Your task to perform on an android device: toggle javascript in the chrome app Image 0: 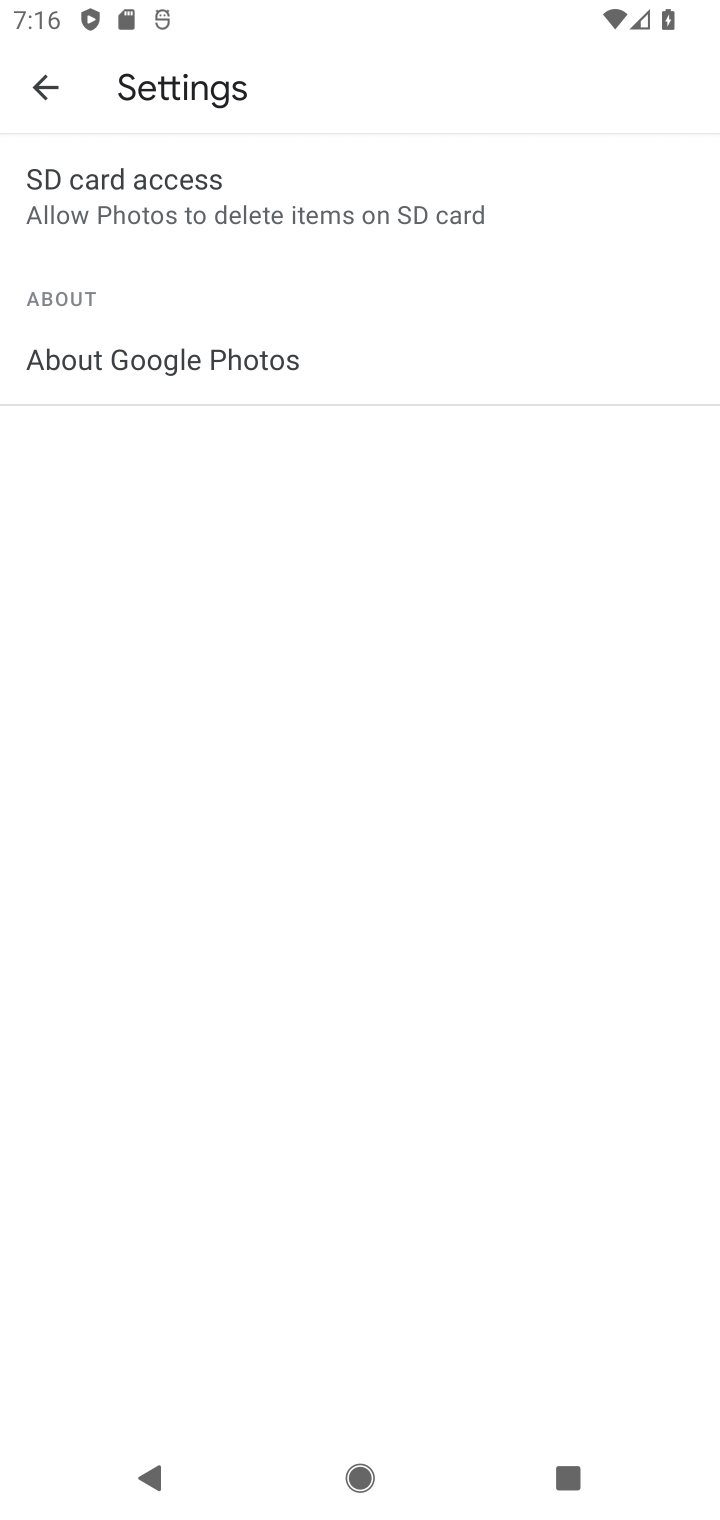
Step 0: press home button
Your task to perform on an android device: toggle javascript in the chrome app Image 1: 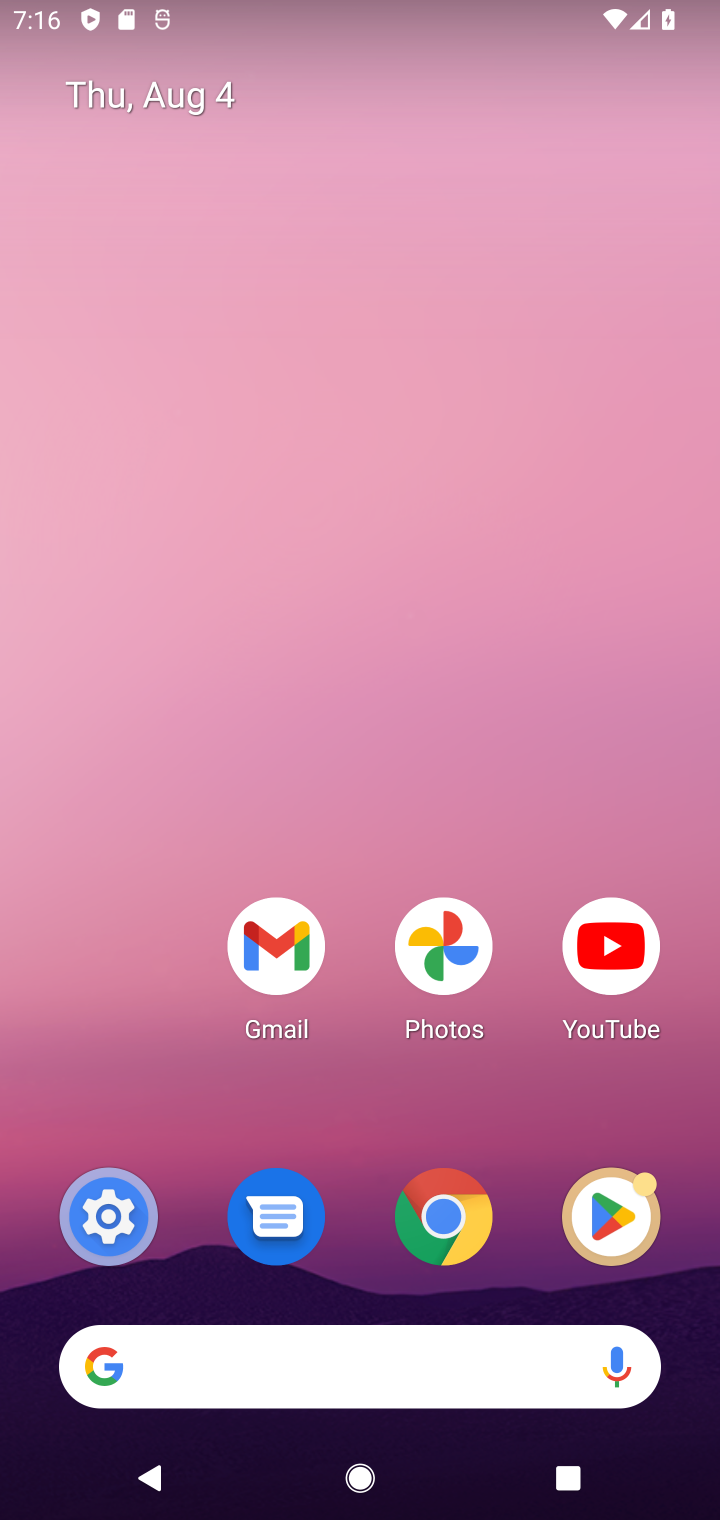
Step 1: click (445, 1244)
Your task to perform on an android device: toggle javascript in the chrome app Image 2: 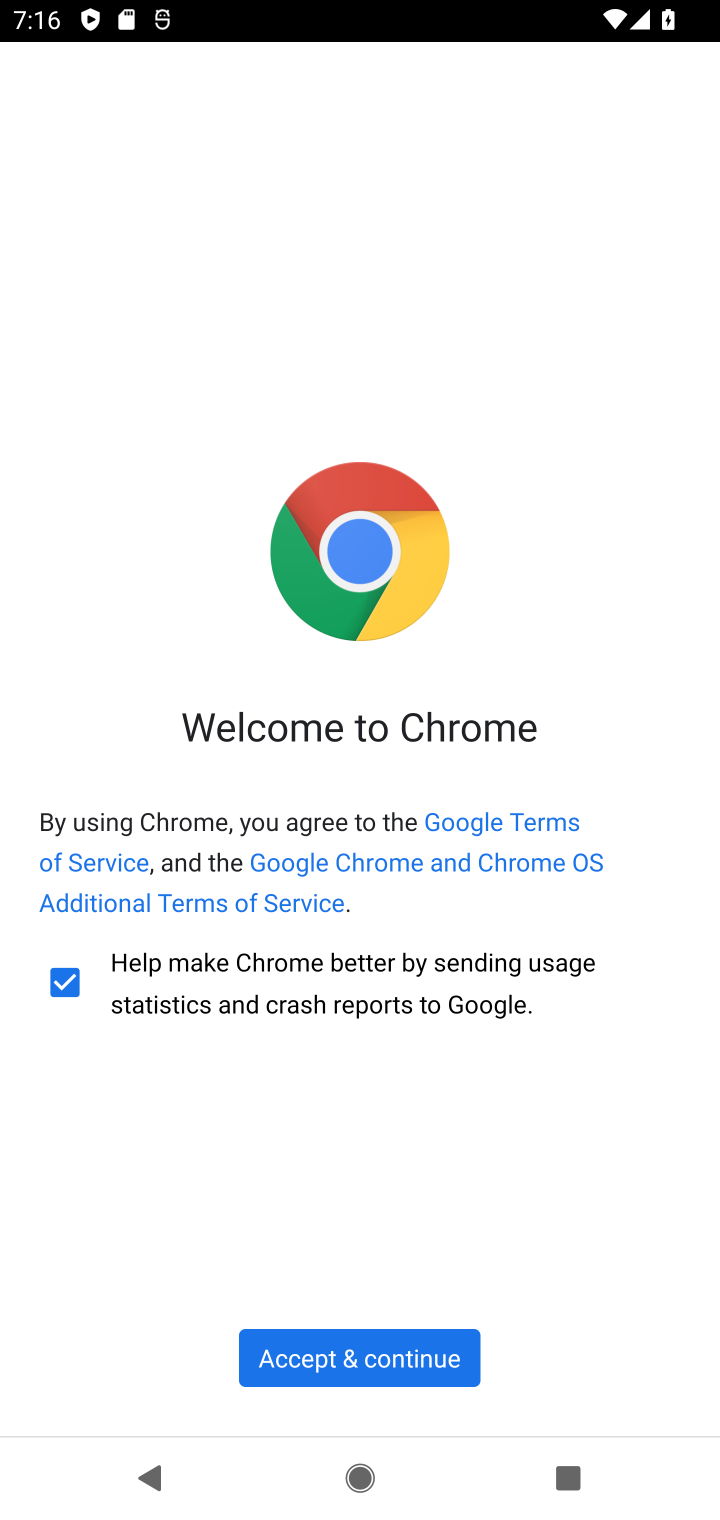
Step 2: click (374, 1351)
Your task to perform on an android device: toggle javascript in the chrome app Image 3: 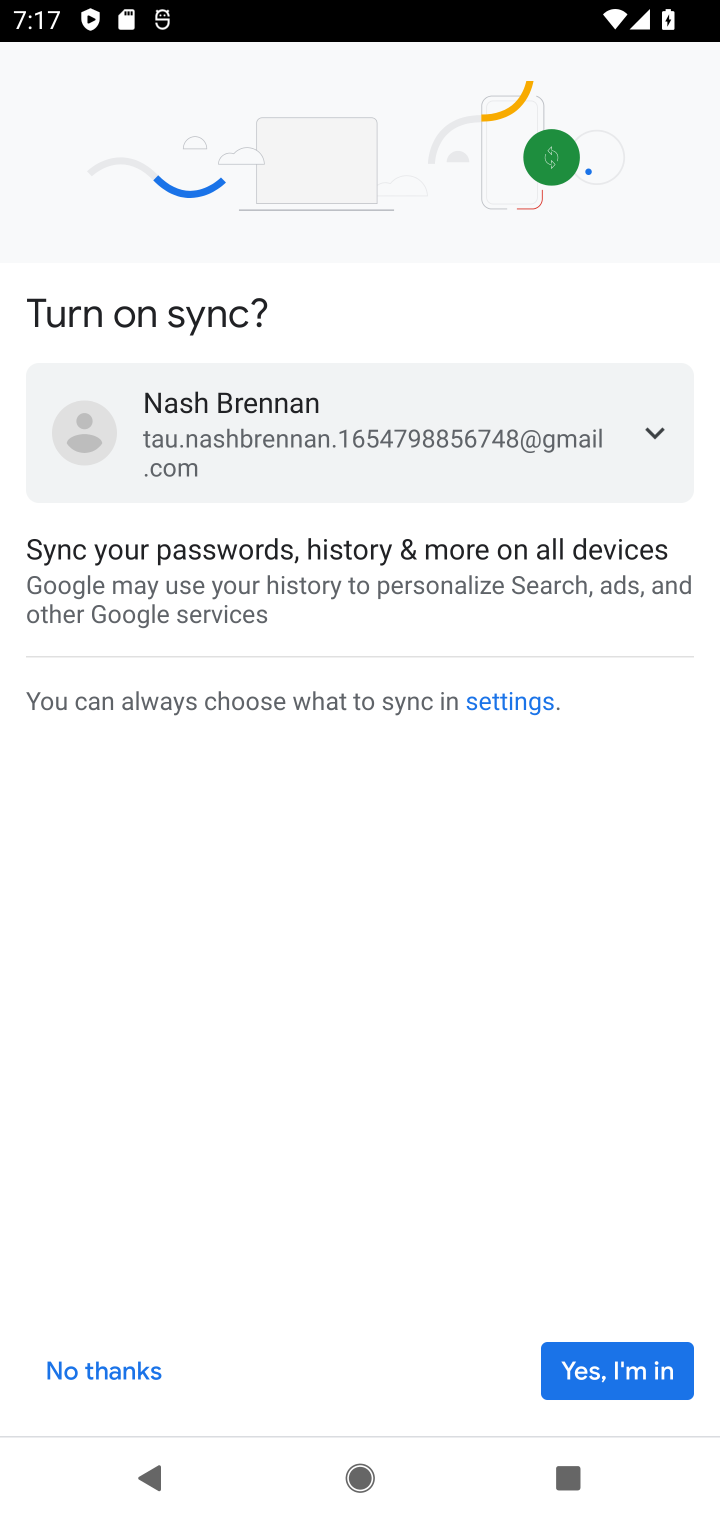
Step 3: click (613, 1373)
Your task to perform on an android device: toggle javascript in the chrome app Image 4: 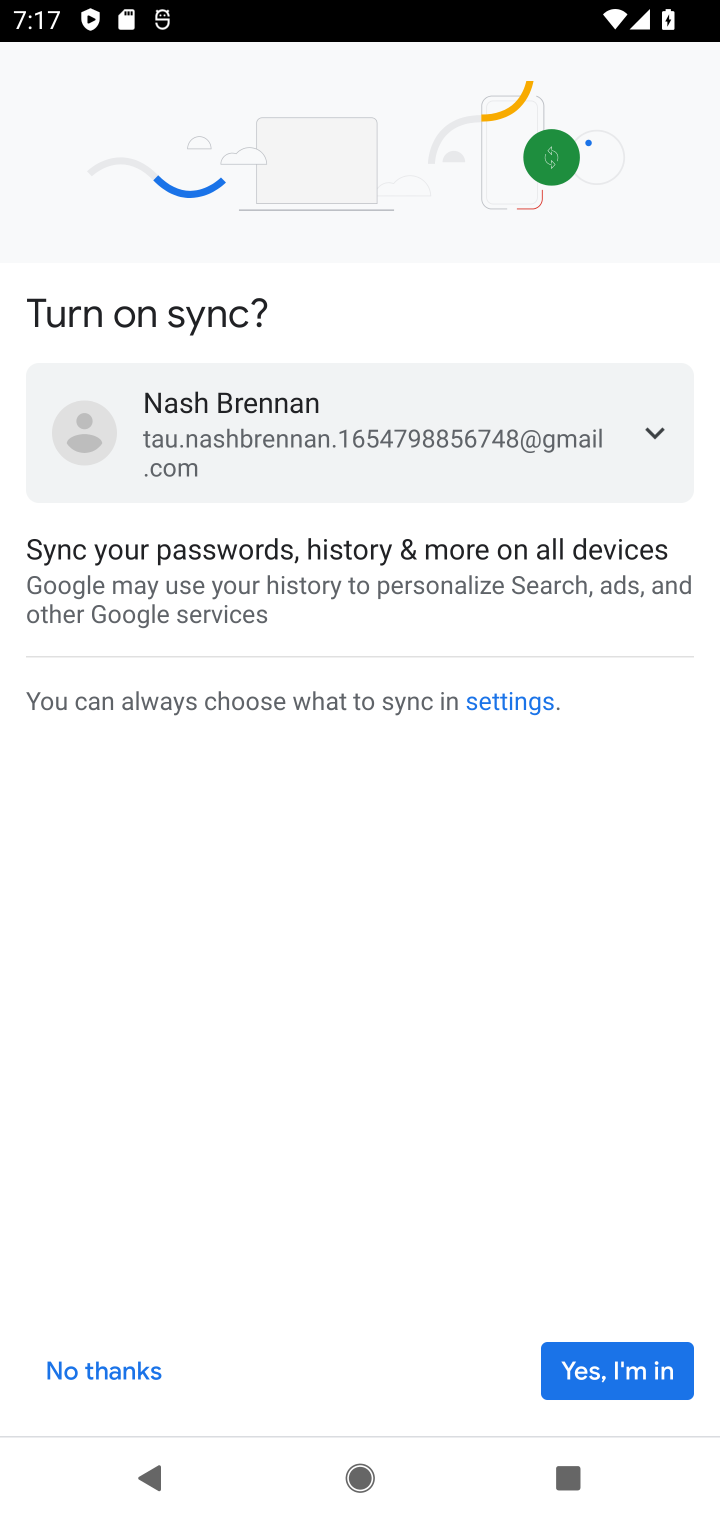
Step 4: click (613, 1373)
Your task to perform on an android device: toggle javascript in the chrome app Image 5: 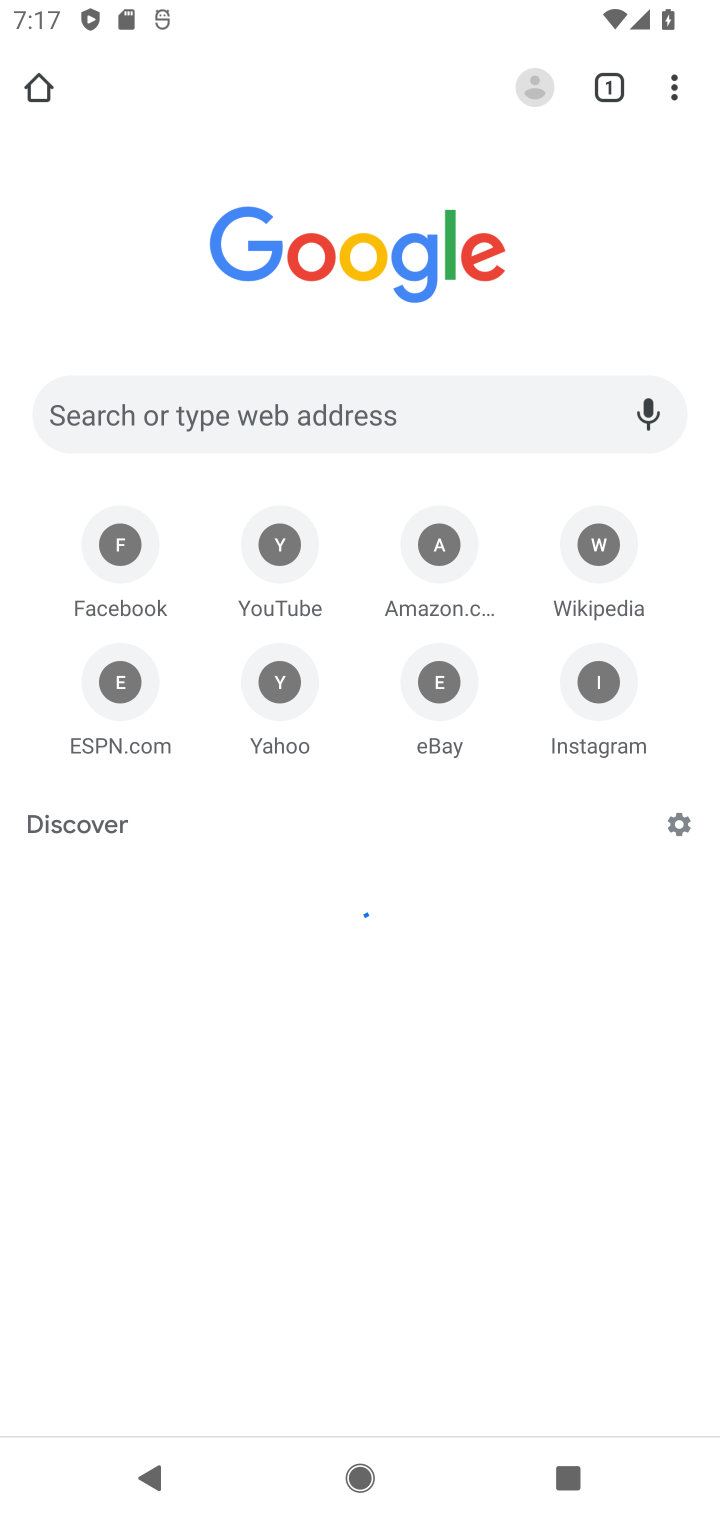
Step 5: click (675, 69)
Your task to perform on an android device: toggle javascript in the chrome app Image 6: 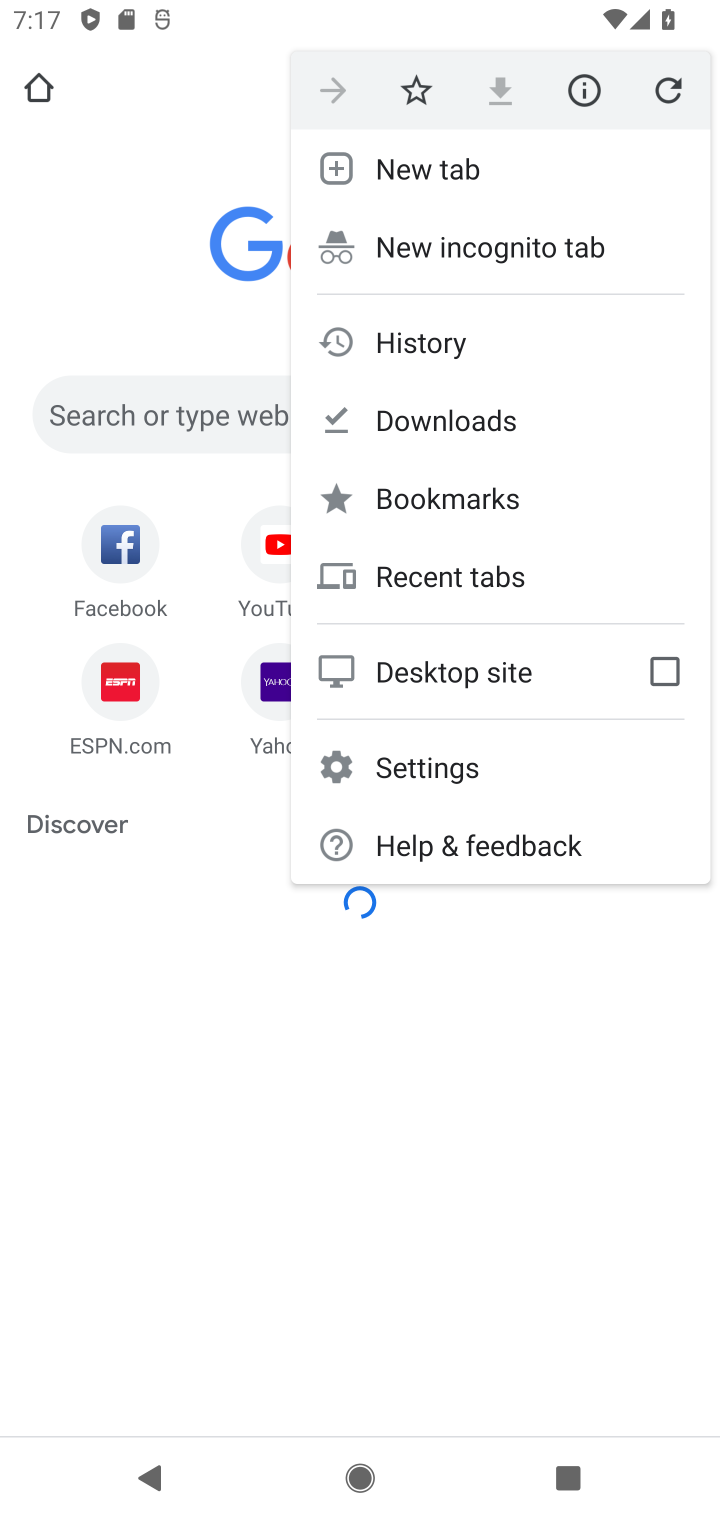
Step 6: click (388, 777)
Your task to perform on an android device: toggle javascript in the chrome app Image 7: 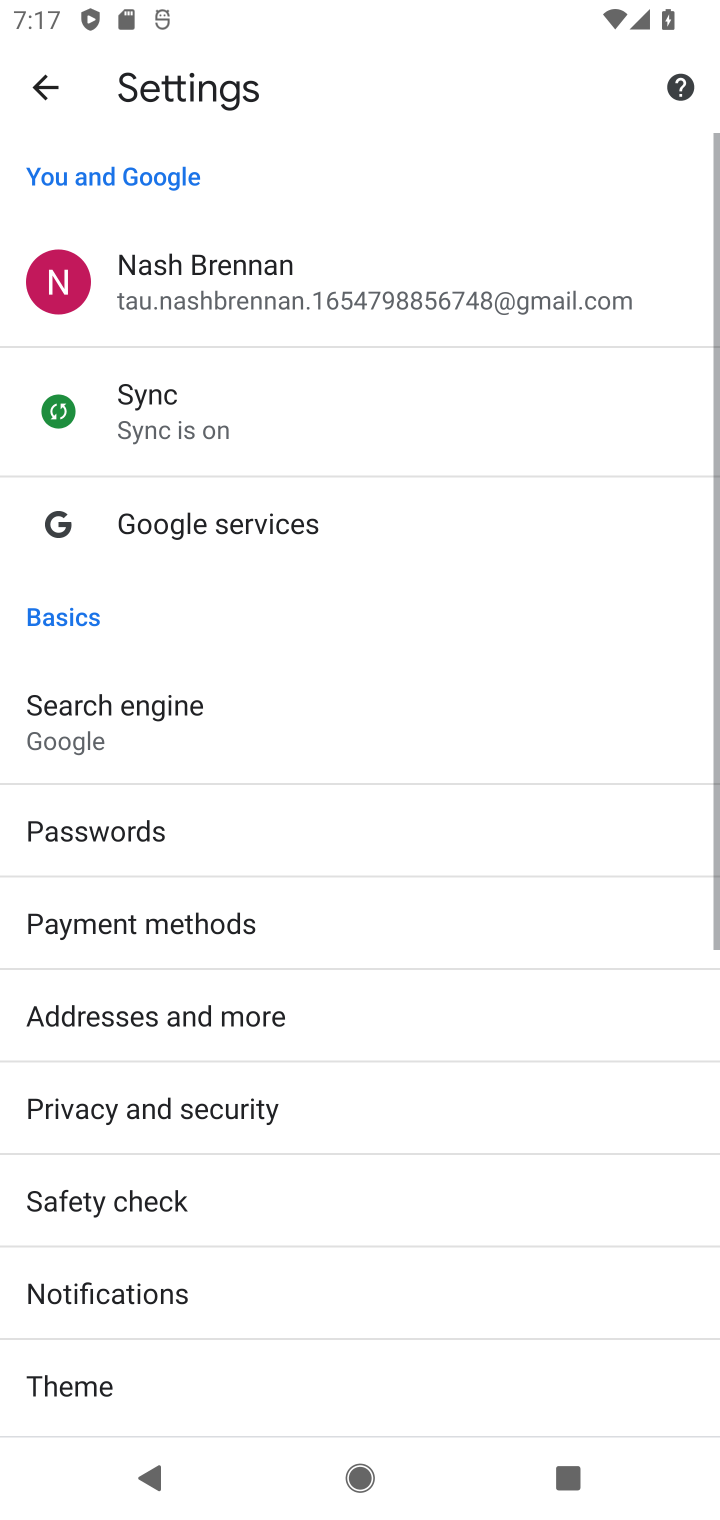
Step 7: drag from (211, 1320) to (346, 374)
Your task to perform on an android device: toggle javascript in the chrome app Image 8: 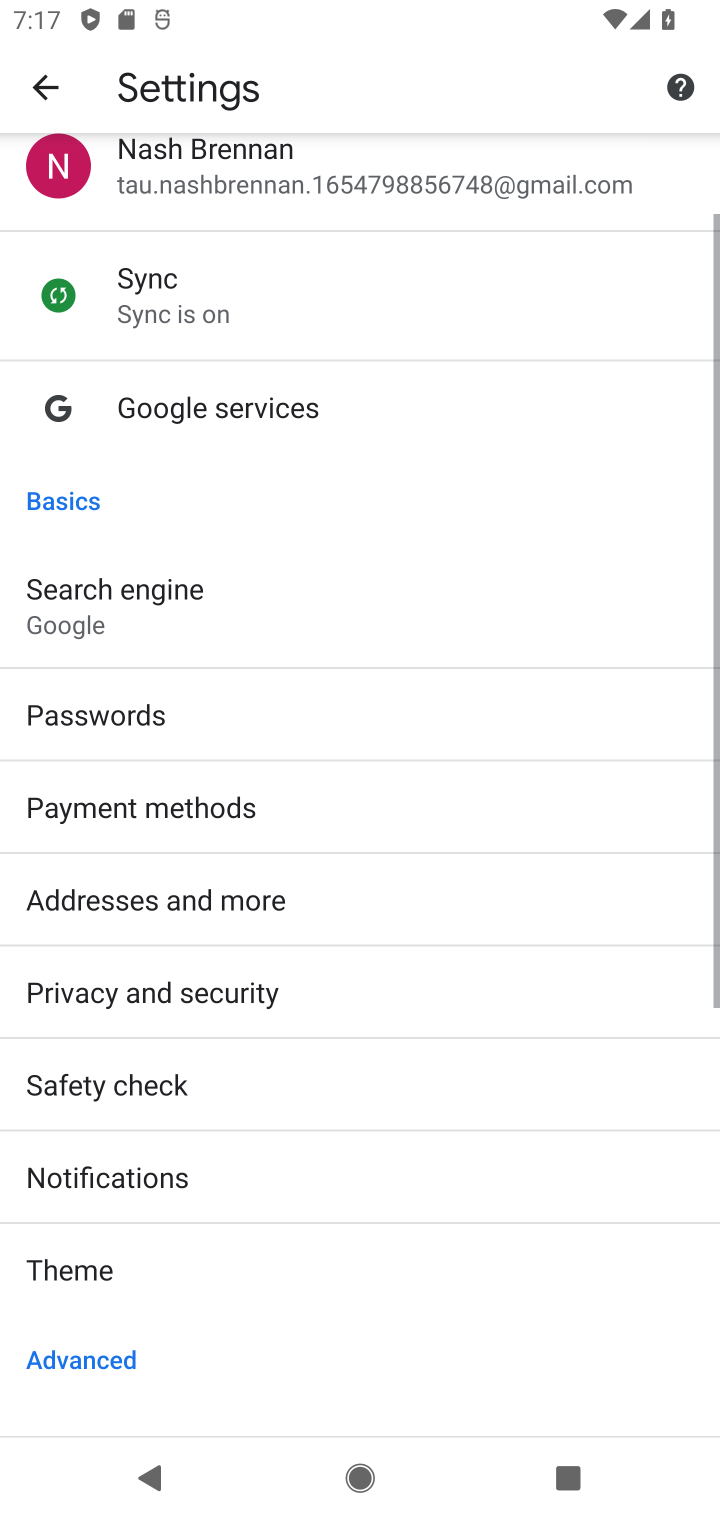
Step 8: drag from (285, 1226) to (229, 505)
Your task to perform on an android device: toggle javascript in the chrome app Image 9: 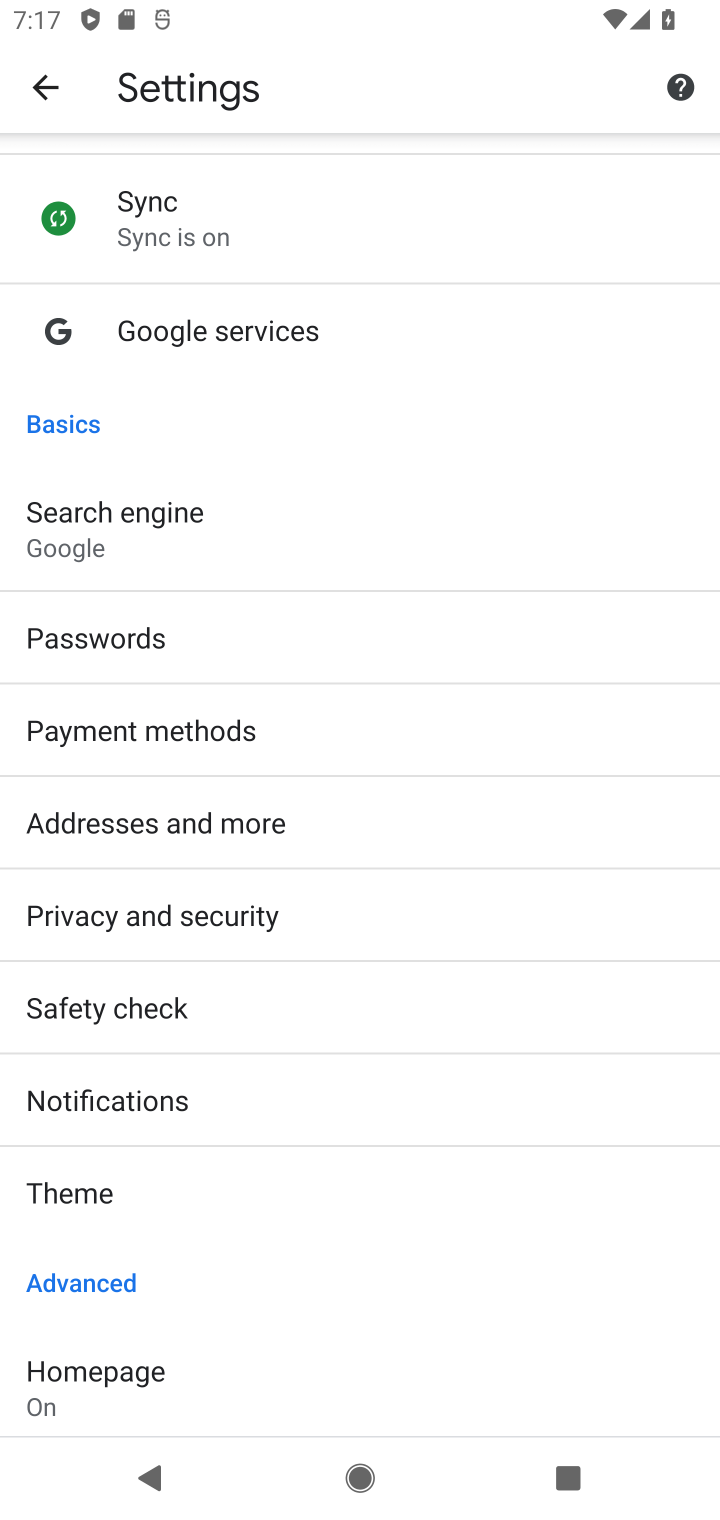
Step 9: drag from (253, 1236) to (156, 189)
Your task to perform on an android device: toggle javascript in the chrome app Image 10: 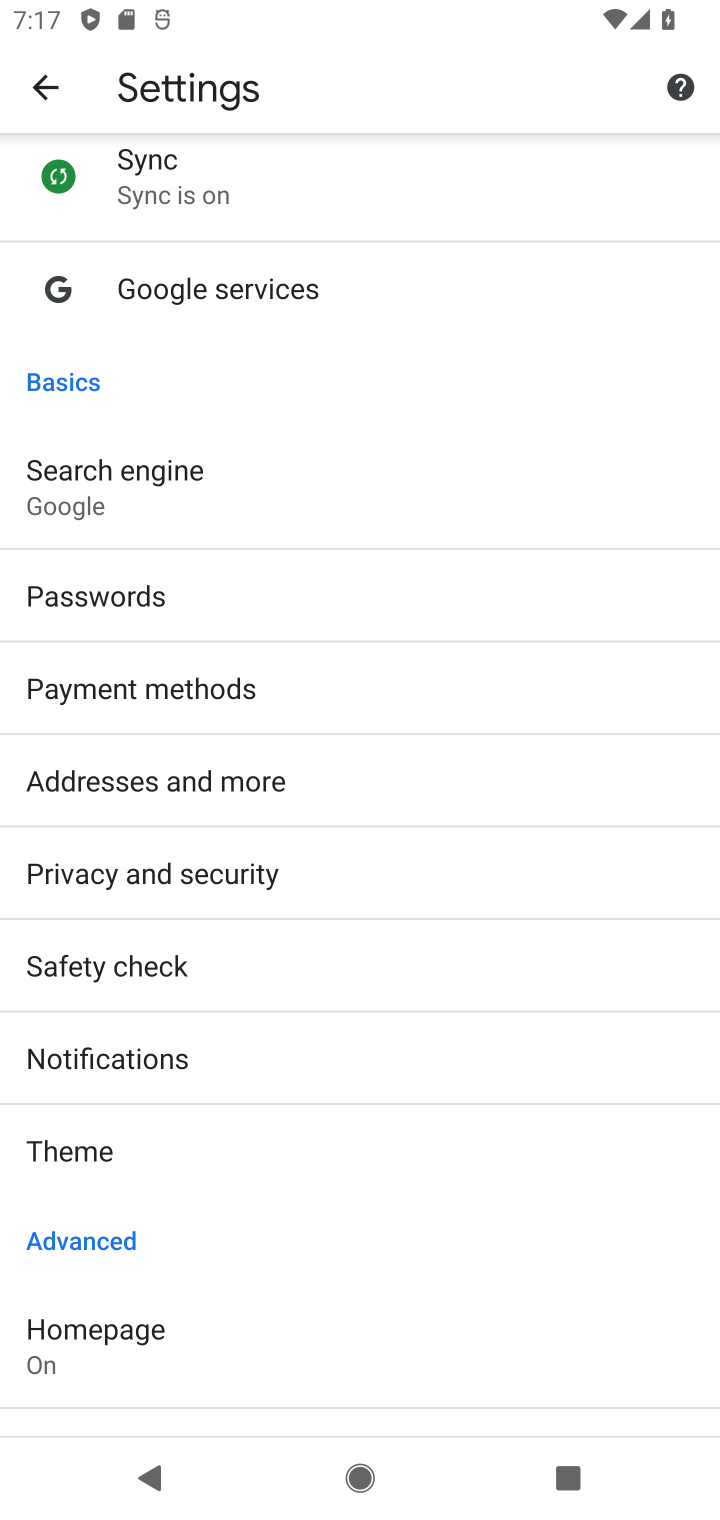
Step 10: drag from (224, 1310) to (124, 660)
Your task to perform on an android device: toggle javascript in the chrome app Image 11: 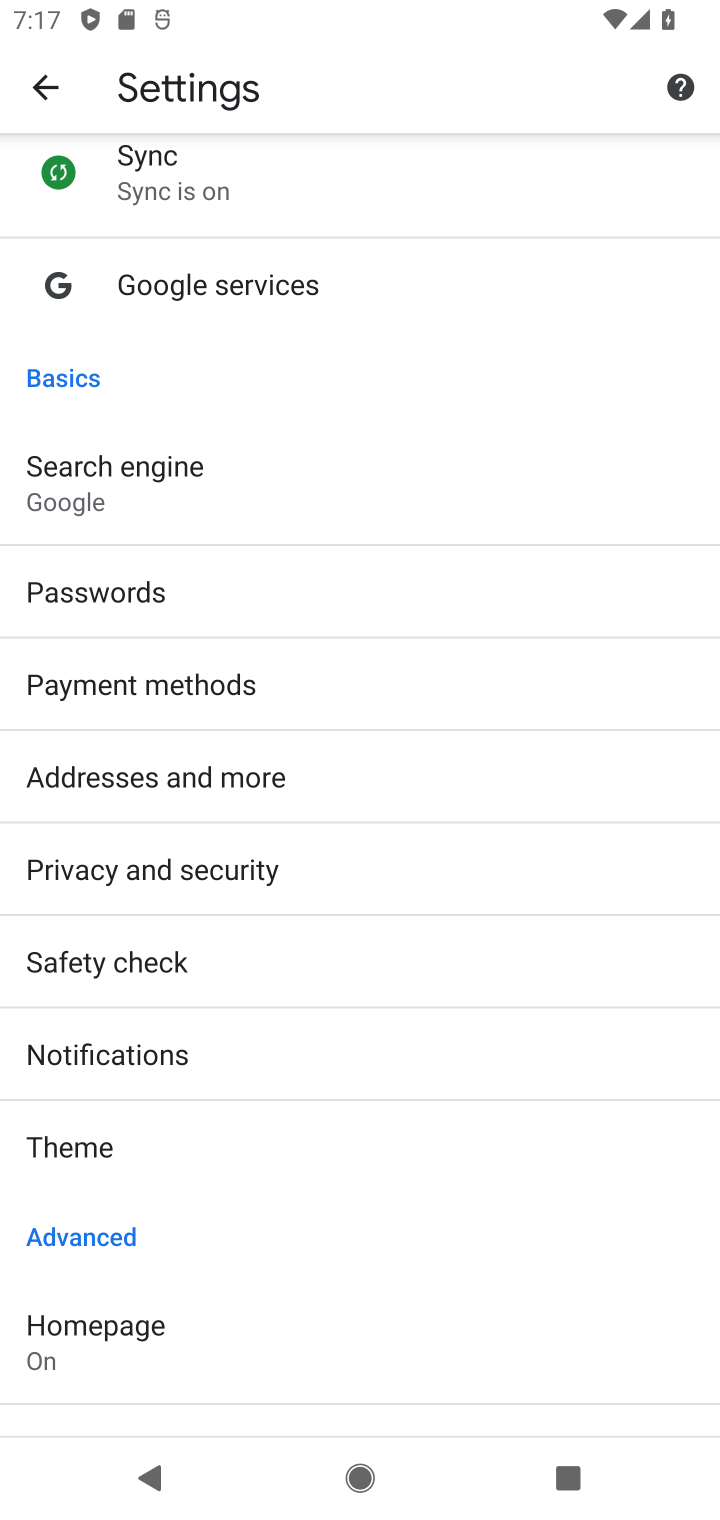
Step 11: drag from (238, 1298) to (264, 505)
Your task to perform on an android device: toggle javascript in the chrome app Image 12: 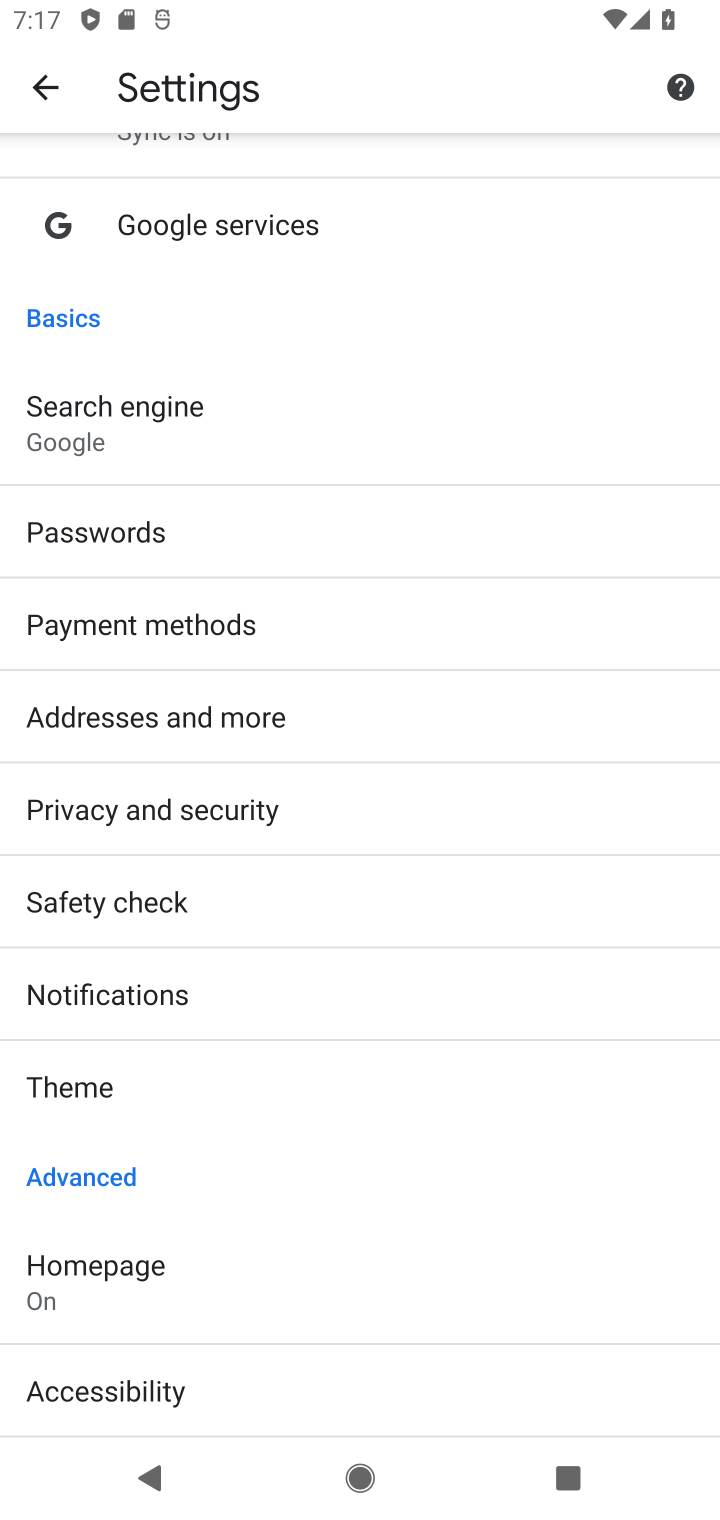
Step 12: drag from (172, 1081) to (66, 29)
Your task to perform on an android device: toggle javascript in the chrome app Image 13: 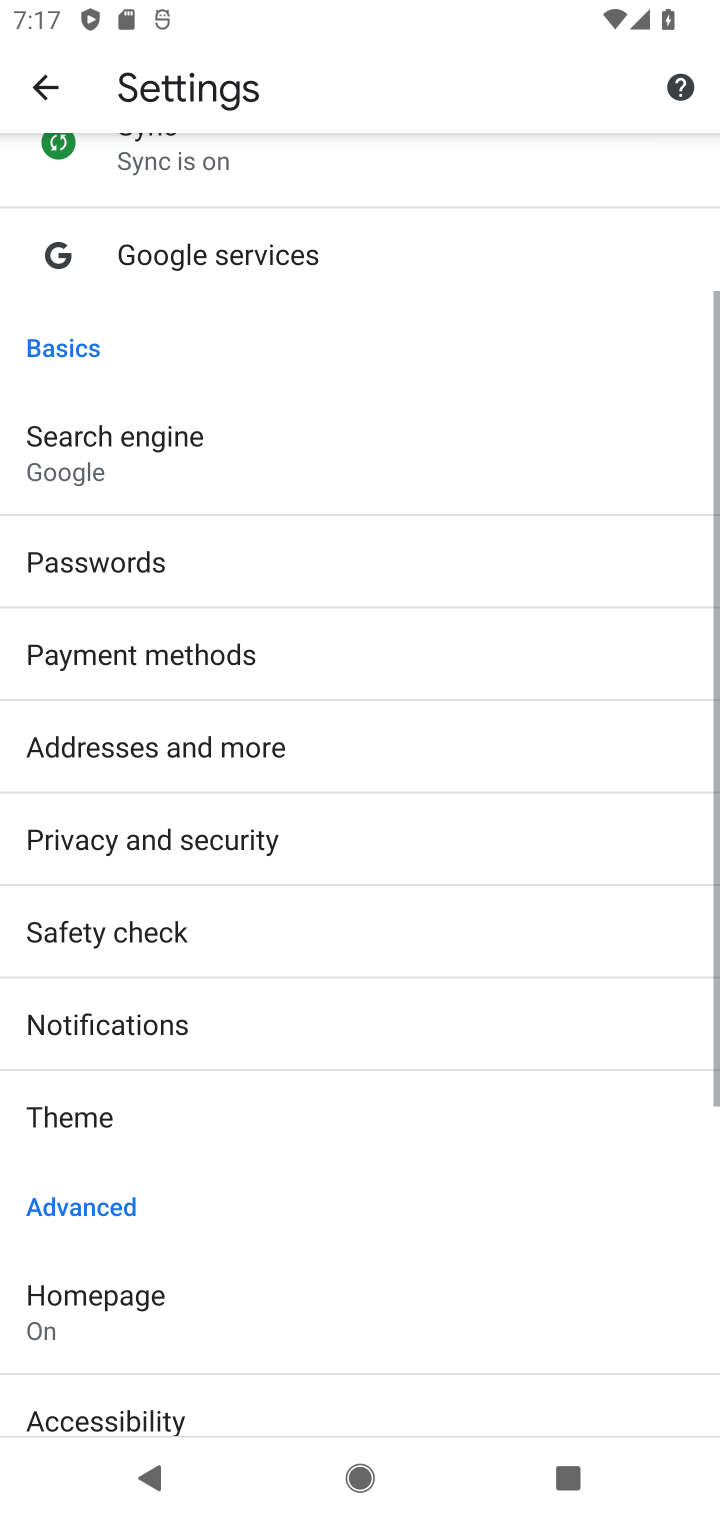
Step 13: drag from (222, 1001) to (311, 24)
Your task to perform on an android device: toggle javascript in the chrome app Image 14: 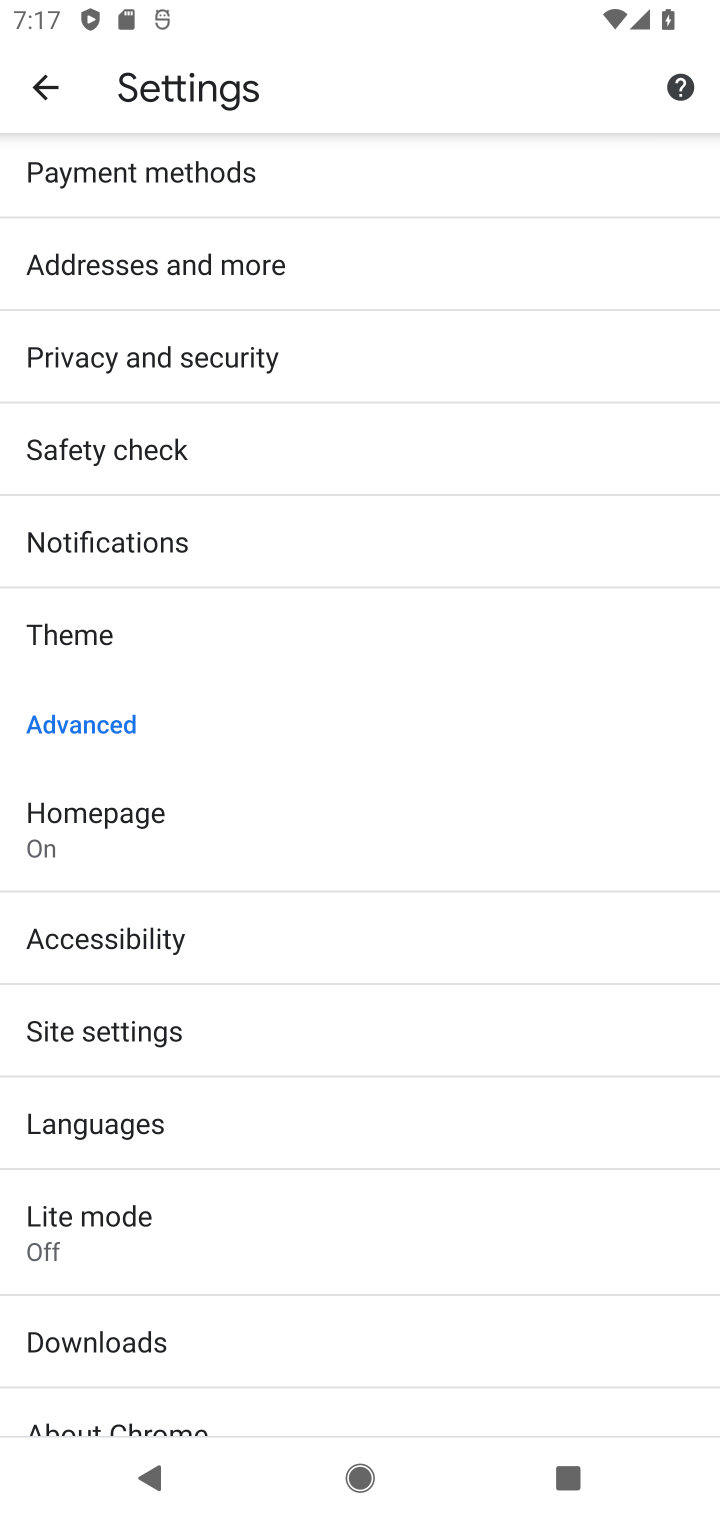
Step 14: click (392, 1041)
Your task to perform on an android device: toggle javascript in the chrome app Image 15: 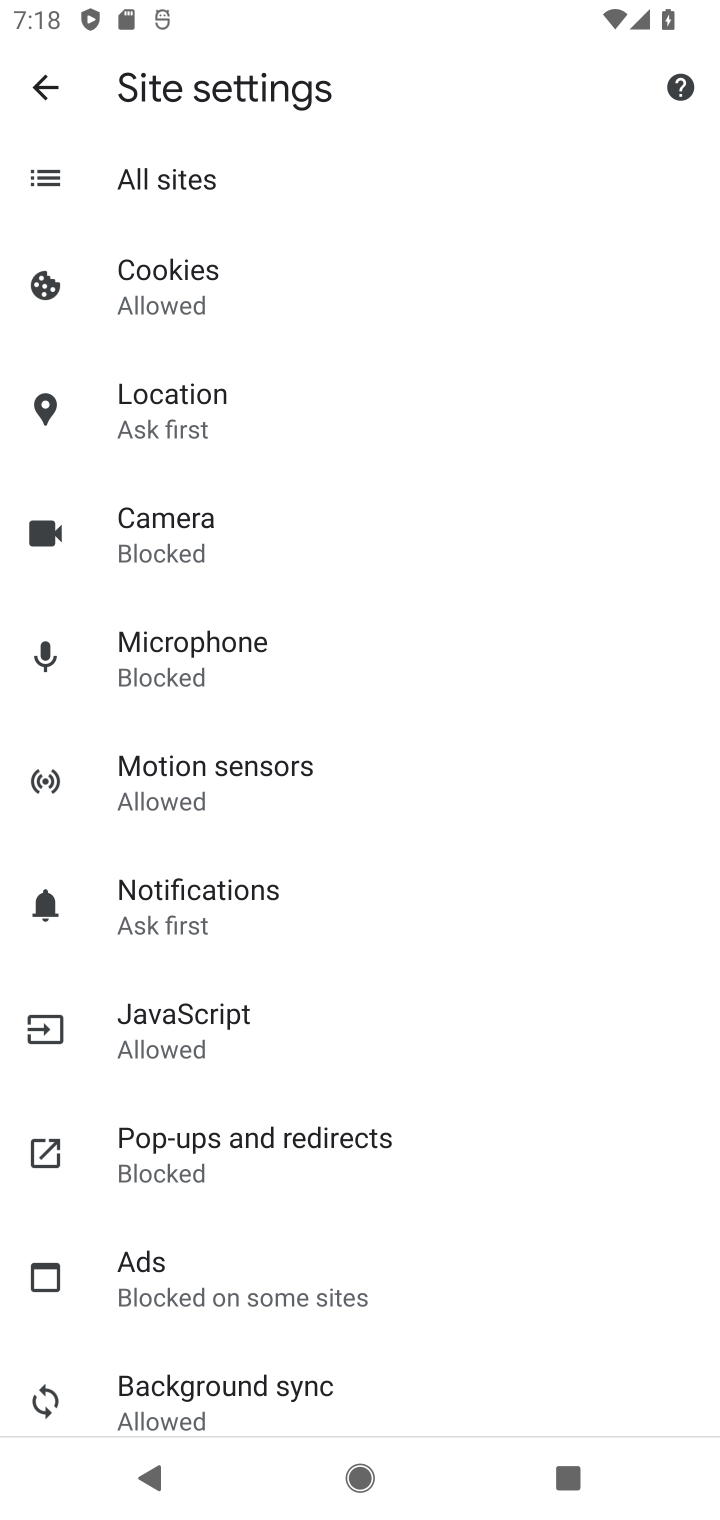
Step 15: click (250, 1036)
Your task to perform on an android device: toggle javascript in the chrome app Image 16: 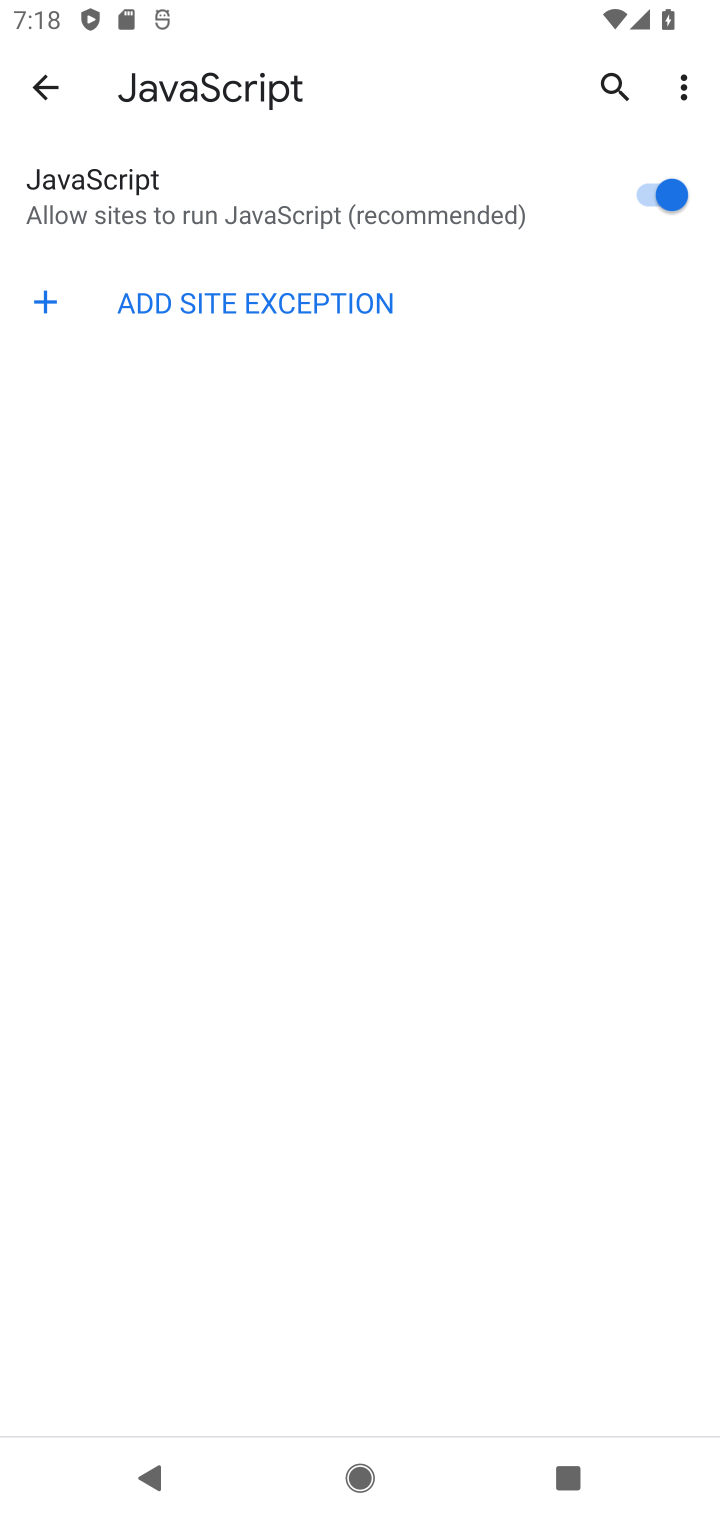
Step 16: click (671, 184)
Your task to perform on an android device: toggle javascript in the chrome app Image 17: 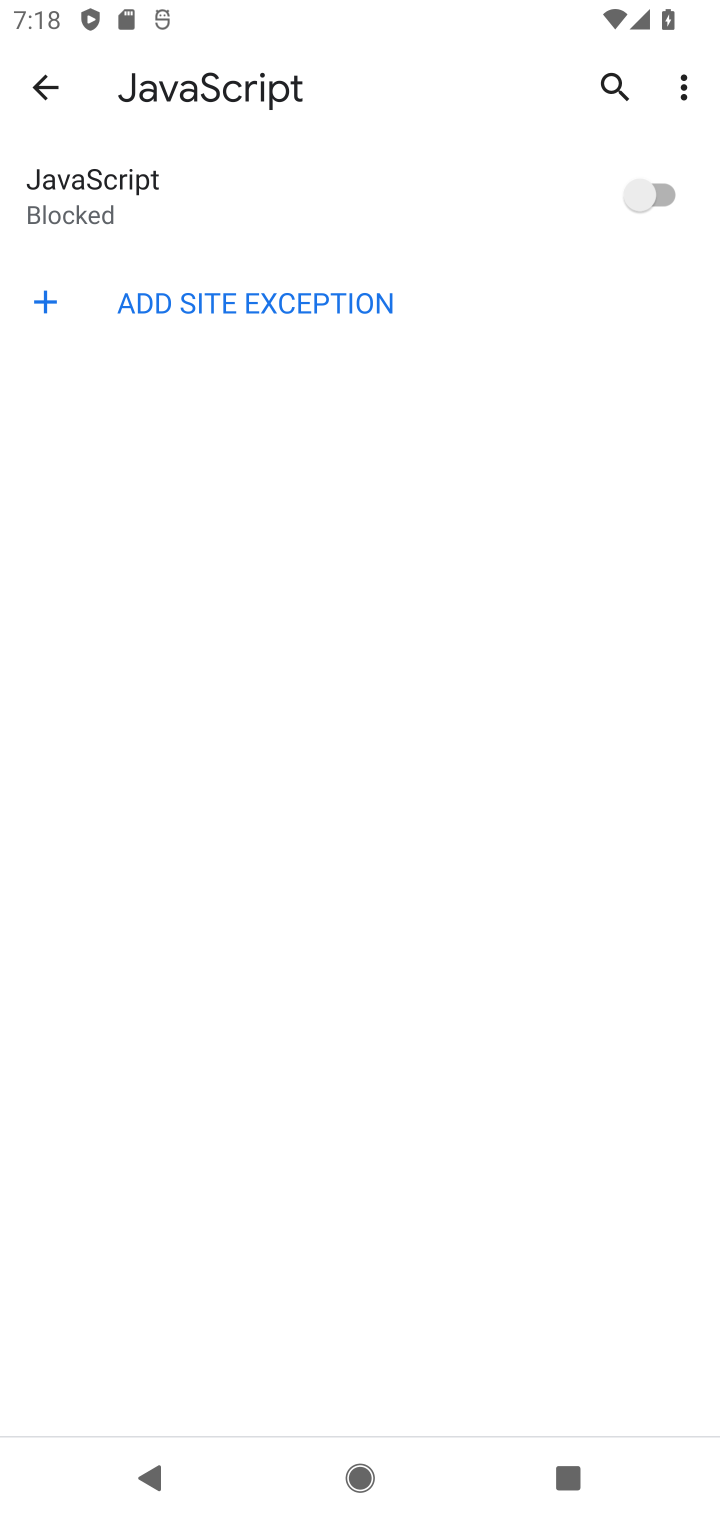
Step 17: task complete